Your task to perform on an android device: Show me popular games on the Play Store Image 0: 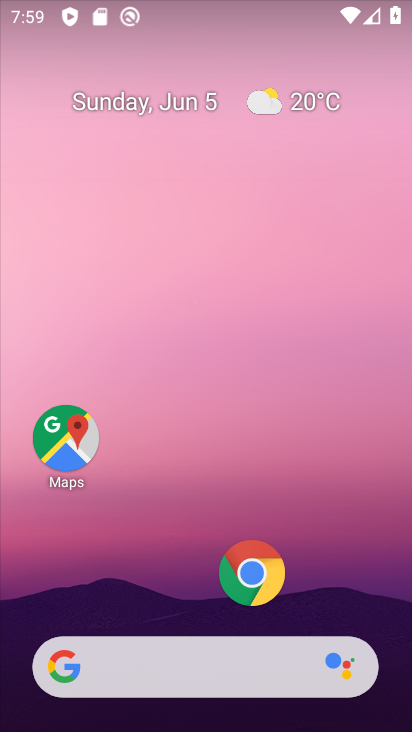
Step 0: drag from (194, 626) to (146, 11)
Your task to perform on an android device: Show me popular games on the Play Store Image 1: 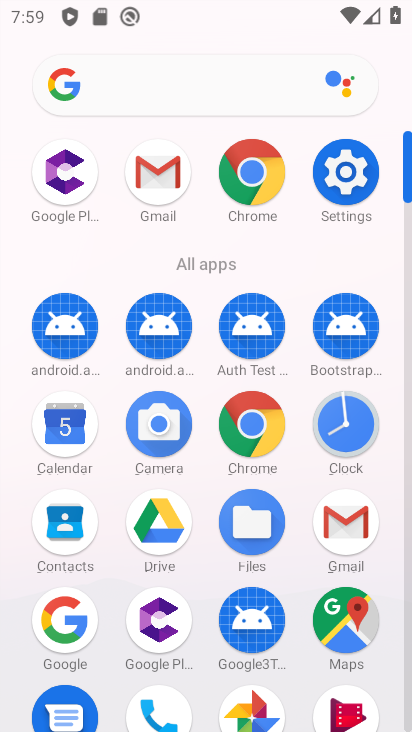
Step 1: drag from (108, 670) to (104, 204)
Your task to perform on an android device: Show me popular games on the Play Store Image 2: 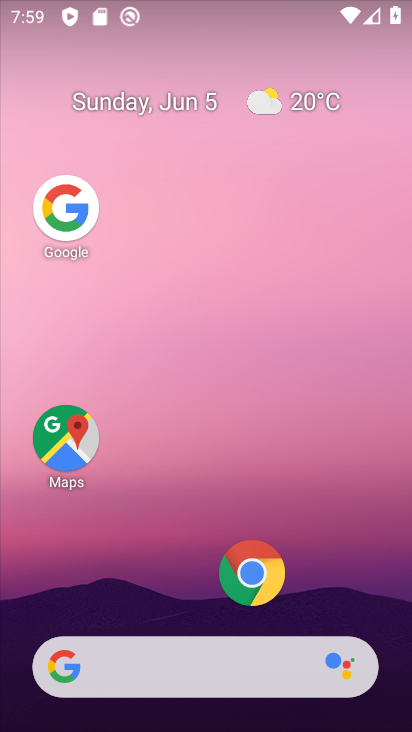
Step 2: drag from (183, 621) to (104, 26)
Your task to perform on an android device: Show me popular games on the Play Store Image 3: 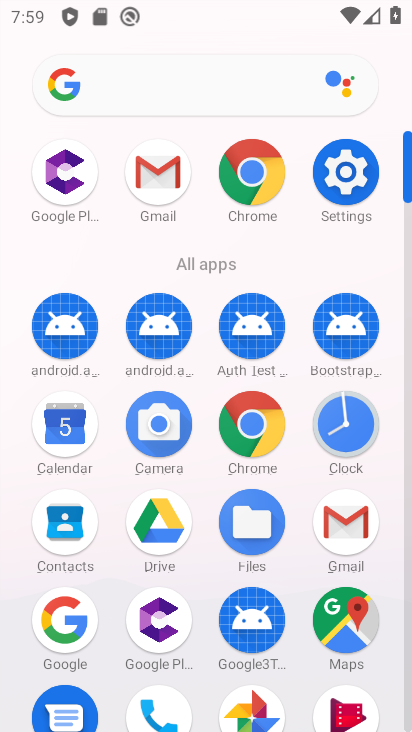
Step 3: drag from (202, 569) to (219, 1)
Your task to perform on an android device: Show me popular games on the Play Store Image 4: 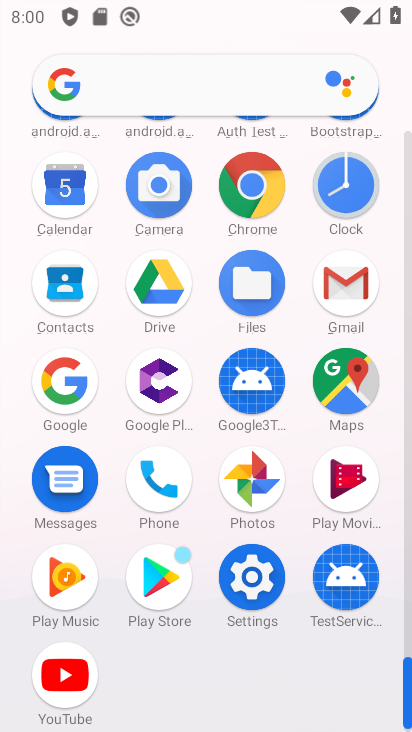
Step 4: click (172, 564)
Your task to perform on an android device: Show me popular games on the Play Store Image 5: 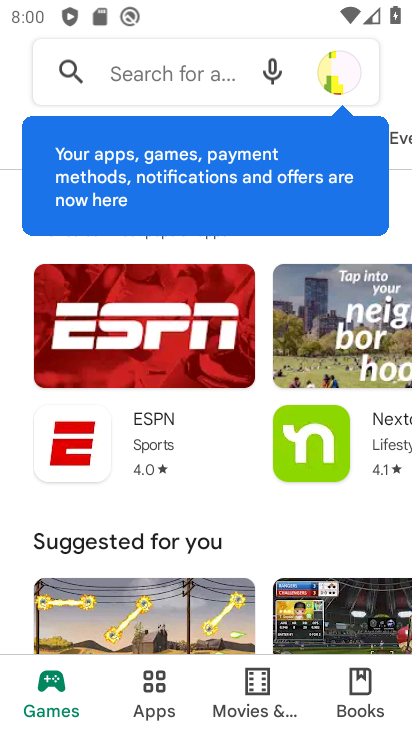
Step 5: drag from (172, 564) to (62, 167)
Your task to perform on an android device: Show me popular games on the Play Store Image 6: 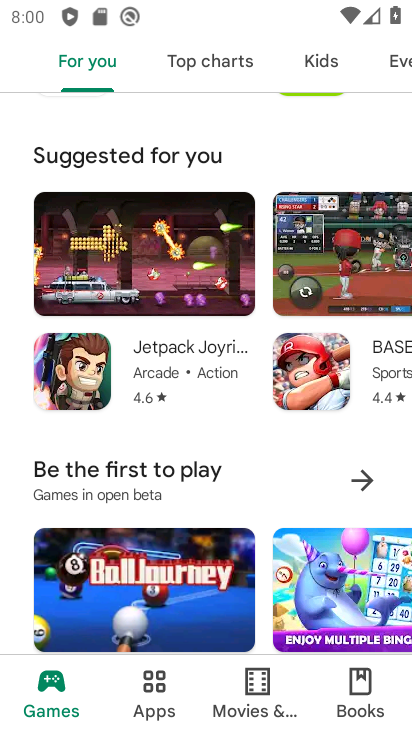
Step 6: drag from (241, 561) to (197, 154)
Your task to perform on an android device: Show me popular games on the Play Store Image 7: 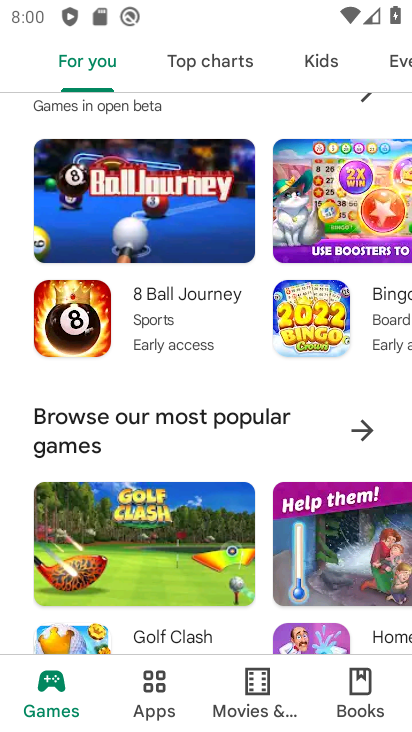
Step 7: click (353, 426)
Your task to perform on an android device: Show me popular games on the Play Store Image 8: 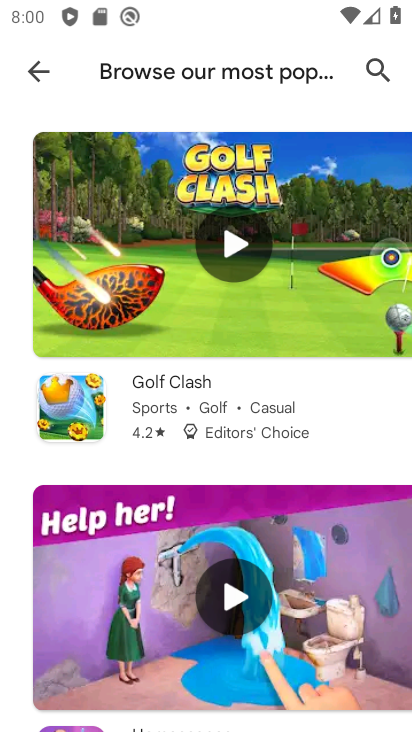
Step 8: task complete